Your task to perform on an android device: Turn off the flashlight Image 0: 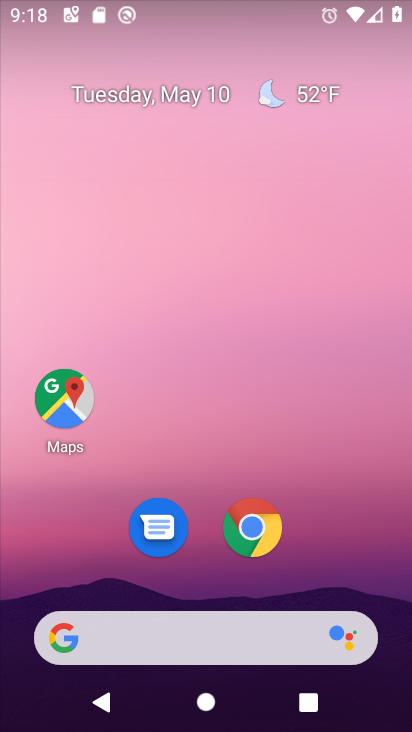
Step 0: drag from (305, 527) to (149, 124)
Your task to perform on an android device: Turn off the flashlight Image 1: 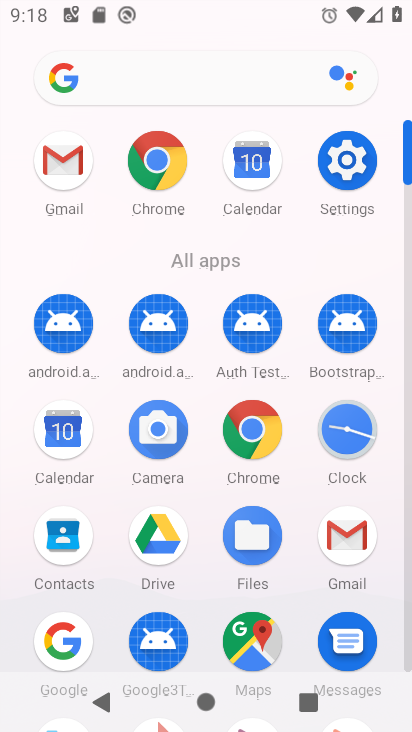
Step 1: click (361, 148)
Your task to perform on an android device: Turn off the flashlight Image 2: 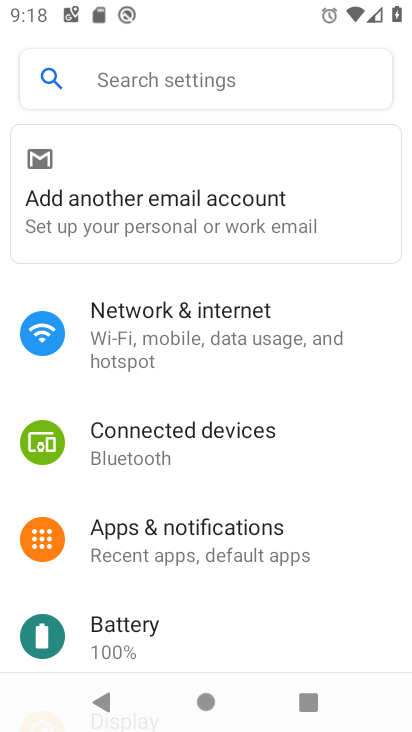
Step 2: click (218, 71)
Your task to perform on an android device: Turn off the flashlight Image 3: 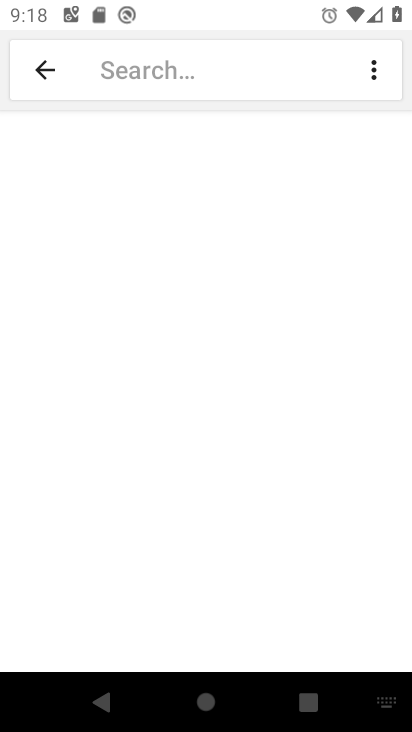
Step 3: type "flashlight"
Your task to perform on an android device: Turn off the flashlight Image 4: 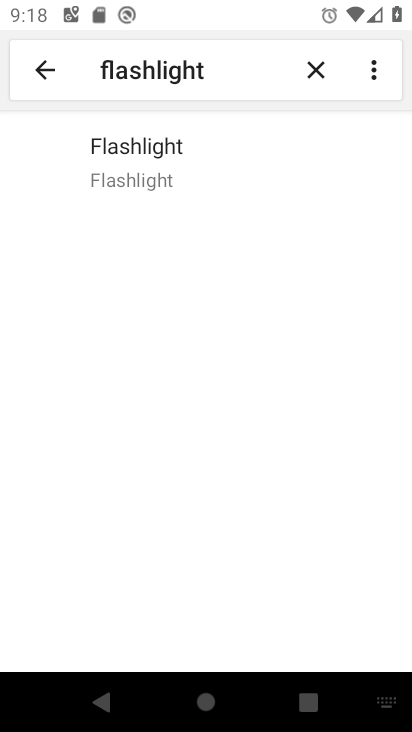
Step 4: click (149, 182)
Your task to perform on an android device: Turn off the flashlight Image 5: 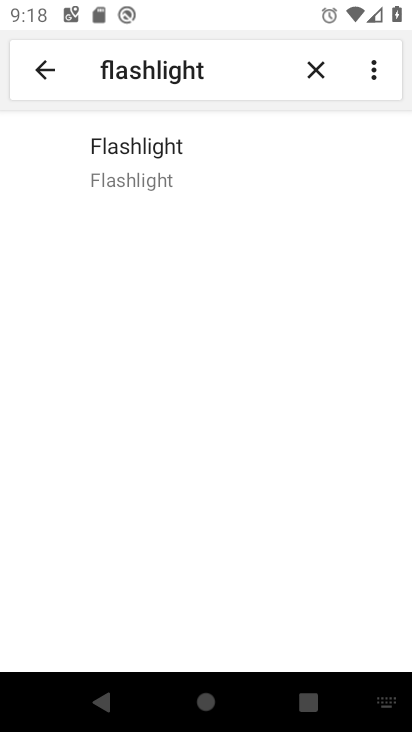
Step 5: click (155, 171)
Your task to perform on an android device: Turn off the flashlight Image 6: 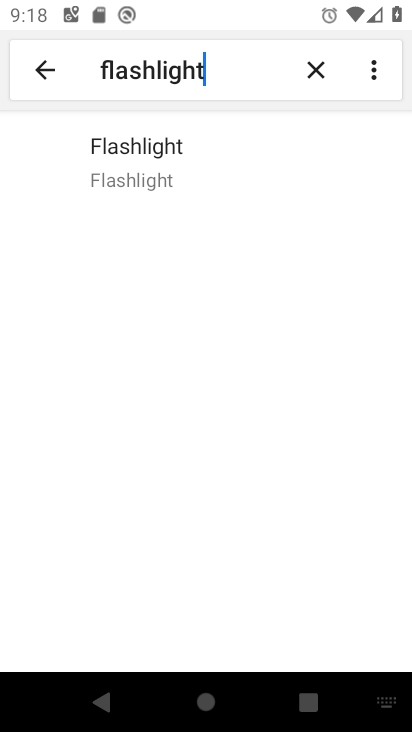
Step 6: click (155, 171)
Your task to perform on an android device: Turn off the flashlight Image 7: 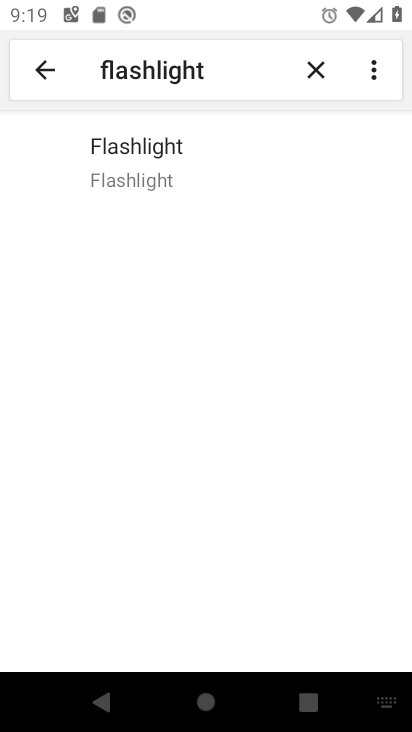
Step 7: click (155, 171)
Your task to perform on an android device: Turn off the flashlight Image 8: 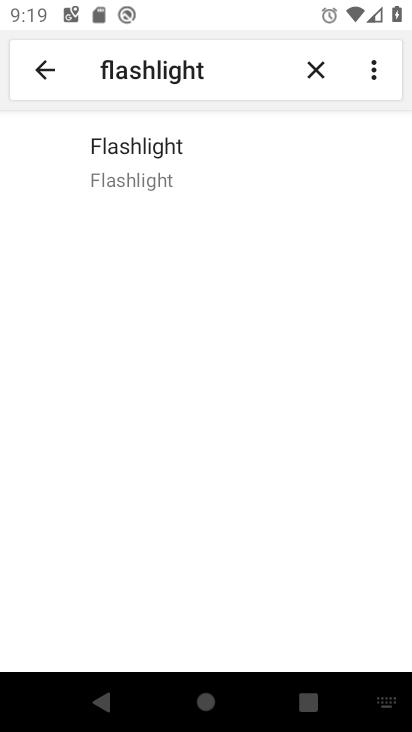
Step 8: task complete